Your task to perform on an android device: snooze an email in the gmail app Image 0: 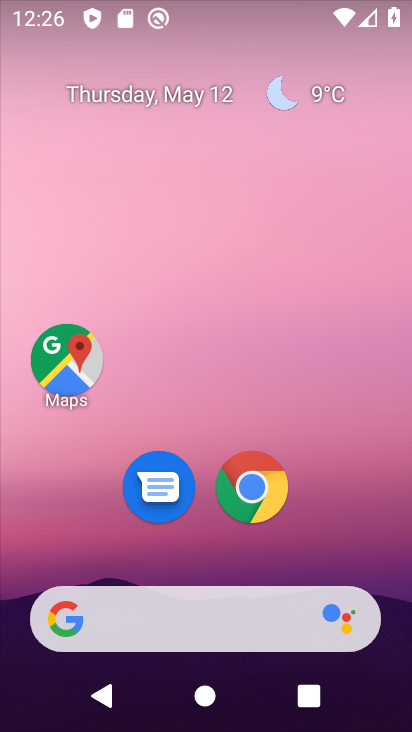
Step 0: drag from (144, 527) to (241, 202)
Your task to perform on an android device: snooze an email in the gmail app Image 1: 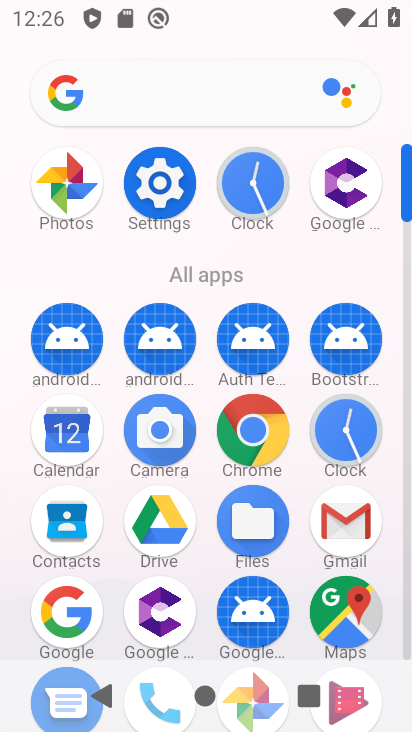
Step 1: click (349, 524)
Your task to perform on an android device: snooze an email in the gmail app Image 2: 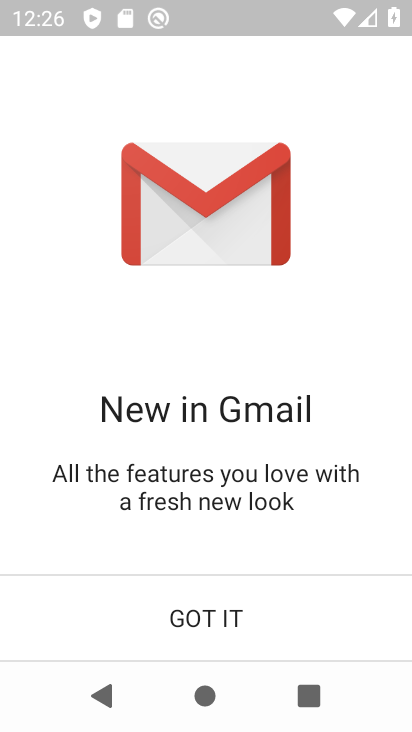
Step 2: click (180, 631)
Your task to perform on an android device: snooze an email in the gmail app Image 3: 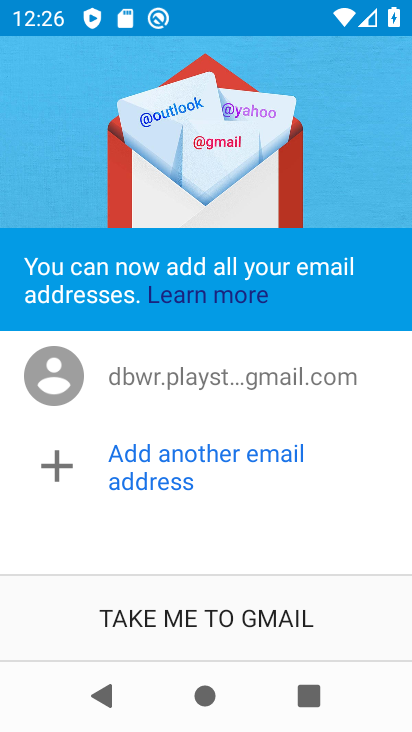
Step 3: click (180, 619)
Your task to perform on an android device: snooze an email in the gmail app Image 4: 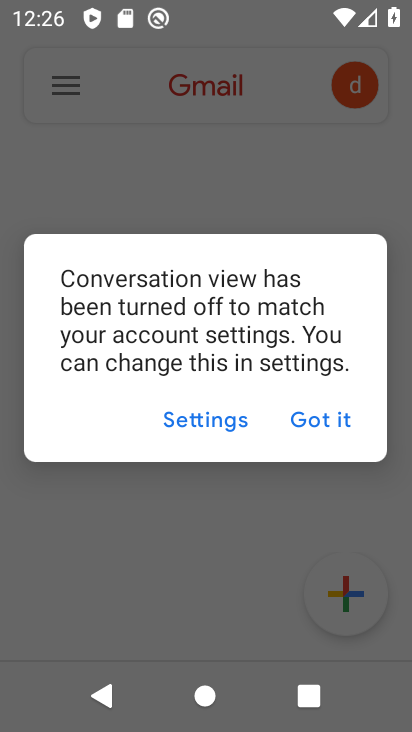
Step 4: click (341, 411)
Your task to perform on an android device: snooze an email in the gmail app Image 5: 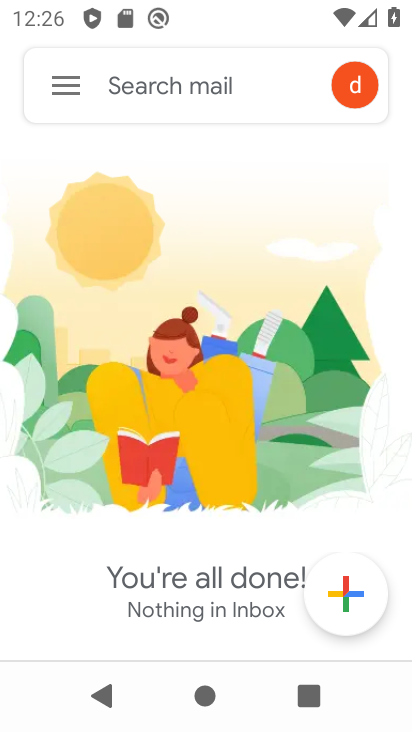
Step 5: click (71, 81)
Your task to perform on an android device: snooze an email in the gmail app Image 6: 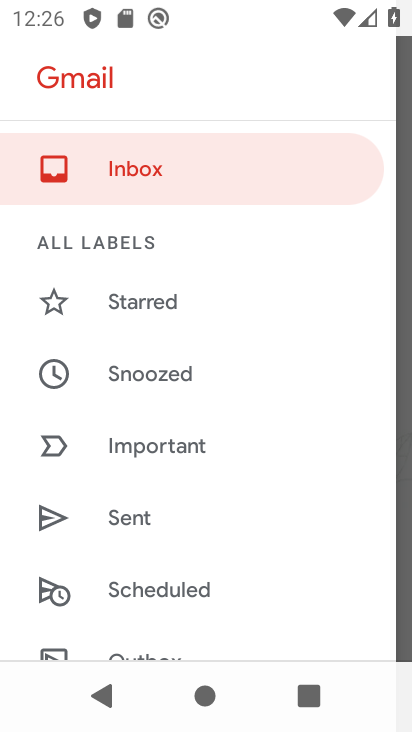
Step 6: click (174, 369)
Your task to perform on an android device: snooze an email in the gmail app Image 7: 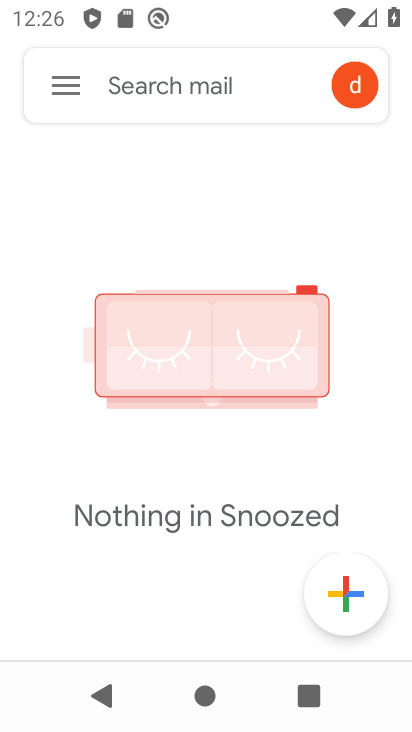
Step 7: task complete